Your task to perform on an android device: Search for the best fantasy books on Goodreads. Image 0: 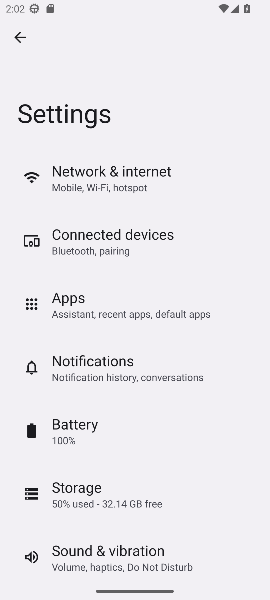
Step 0: press home button
Your task to perform on an android device: Search for the best fantasy books on Goodreads. Image 1: 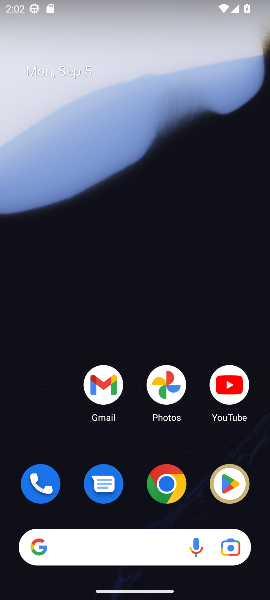
Step 1: click (160, 491)
Your task to perform on an android device: Search for the best fantasy books on Goodreads. Image 2: 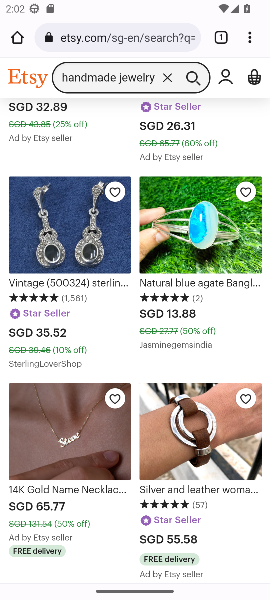
Step 2: click (127, 33)
Your task to perform on an android device: Search for the best fantasy books on Goodreads. Image 3: 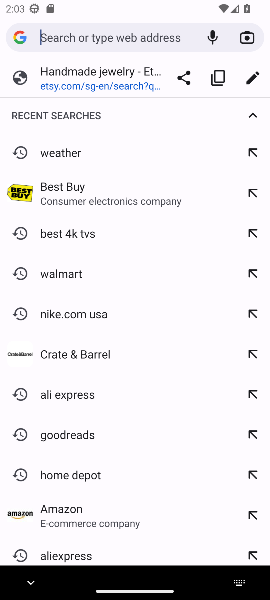
Step 3: type "Goodreads"
Your task to perform on an android device: Search for the best fantasy books on Goodreads. Image 4: 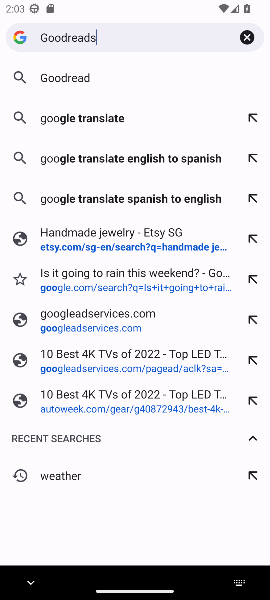
Step 4: press enter
Your task to perform on an android device: Search for the best fantasy books on Goodreads. Image 5: 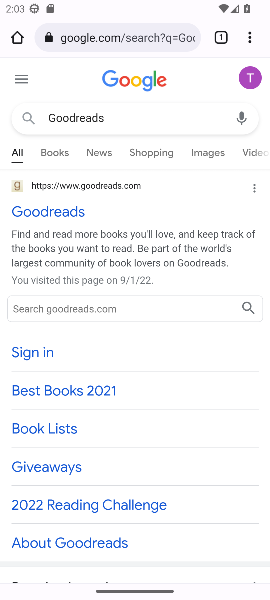
Step 5: click (66, 210)
Your task to perform on an android device: Search for the best fantasy books on Goodreads. Image 6: 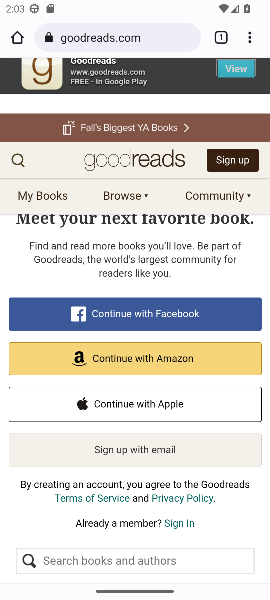
Step 6: click (20, 160)
Your task to perform on an android device: Search for the best fantasy books on Goodreads. Image 7: 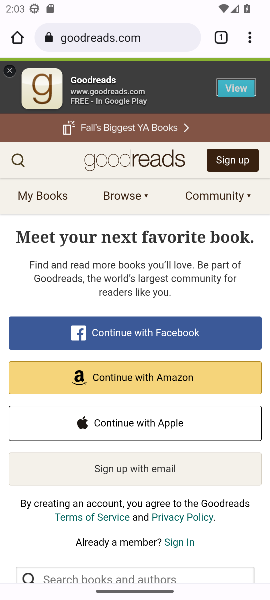
Step 7: click (16, 161)
Your task to perform on an android device: Search for the best fantasy books on Goodreads. Image 8: 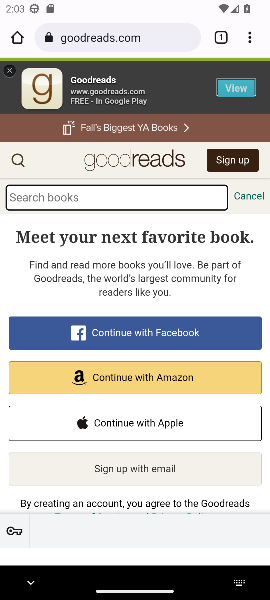
Step 8: type "best fantasy books"
Your task to perform on an android device: Search for the best fantasy books on Goodreads. Image 9: 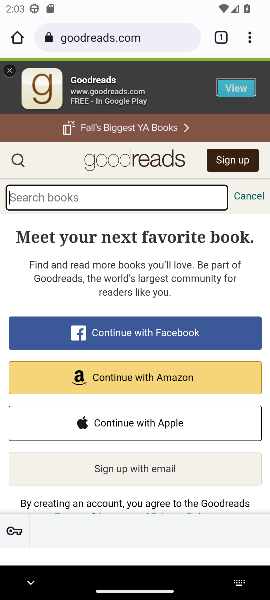
Step 9: press enter
Your task to perform on an android device: Search for the best fantasy books on Goodreads. Image 10: 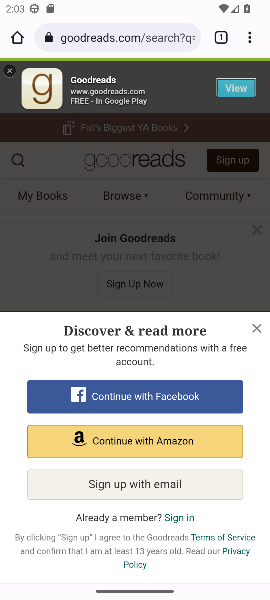
Step 10: click (255, 327)
Your task to perform on an android device: Search for the best fantasy books on Goodreads. Image 11: 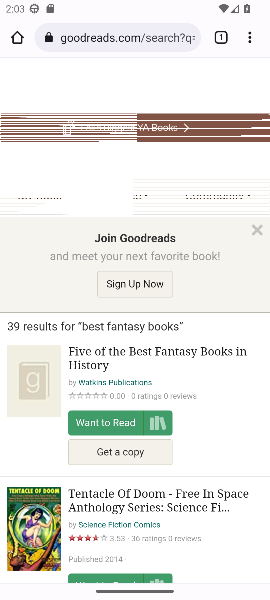
Step 11: drag from (191, 483) to (217, 276)
Your task to perform on an android device: Search for the best fantasy books on Goodreads. Image 12: 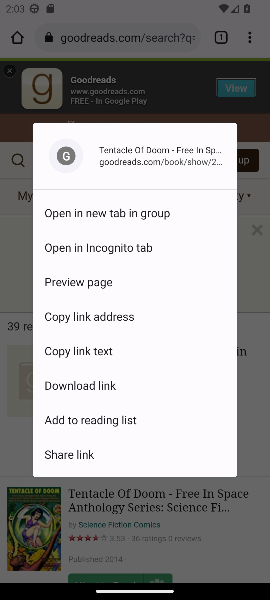
Step 12: click (253, 534)
Your task to perform on an android device: Search for the best fantasy books on Goodreads. Image 13: 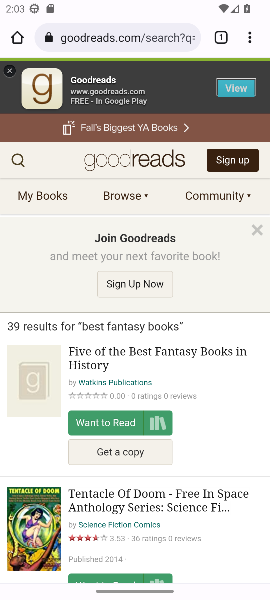
Step 13: task complete